Your task to perform on an android device: open app "Cash App" (install if not already installed) and go to login screen Image 0: 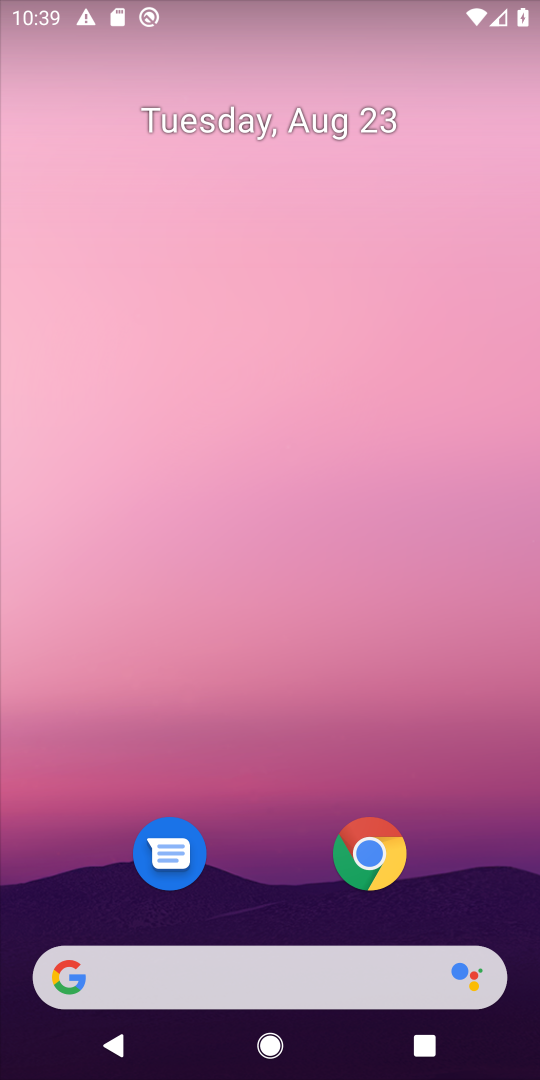
Step 0: drag from (533, 617) to (511, 189)
Your task to perform on an android device: open app "Cash App" (install if not already installed) and go to login screen Image 1: 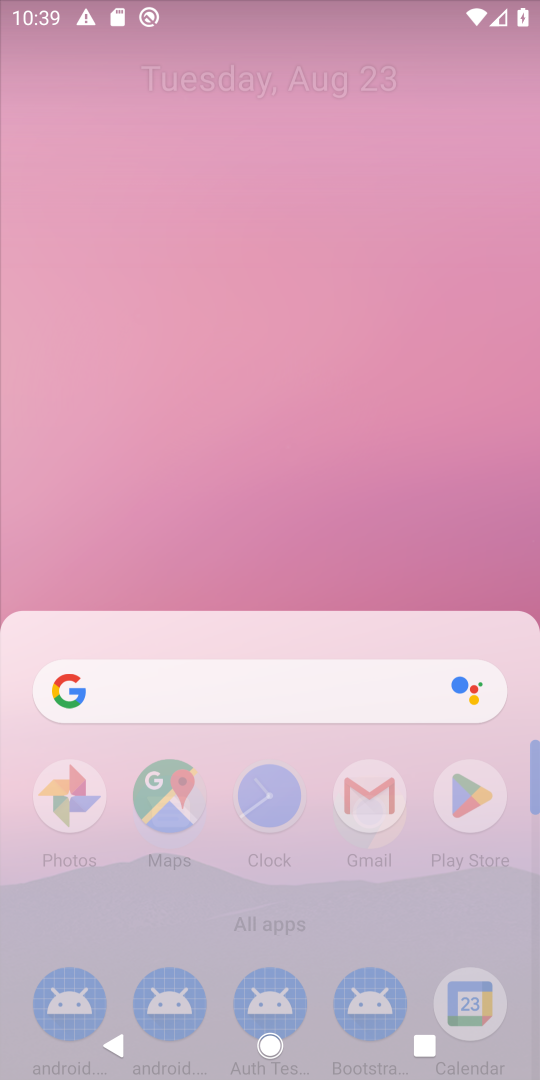
Step 1: drag from (274, 821) to (237, 169)
Your task to perform on an android device: open app "Cash App" (install if not already installed) and go to login screen Image 2: 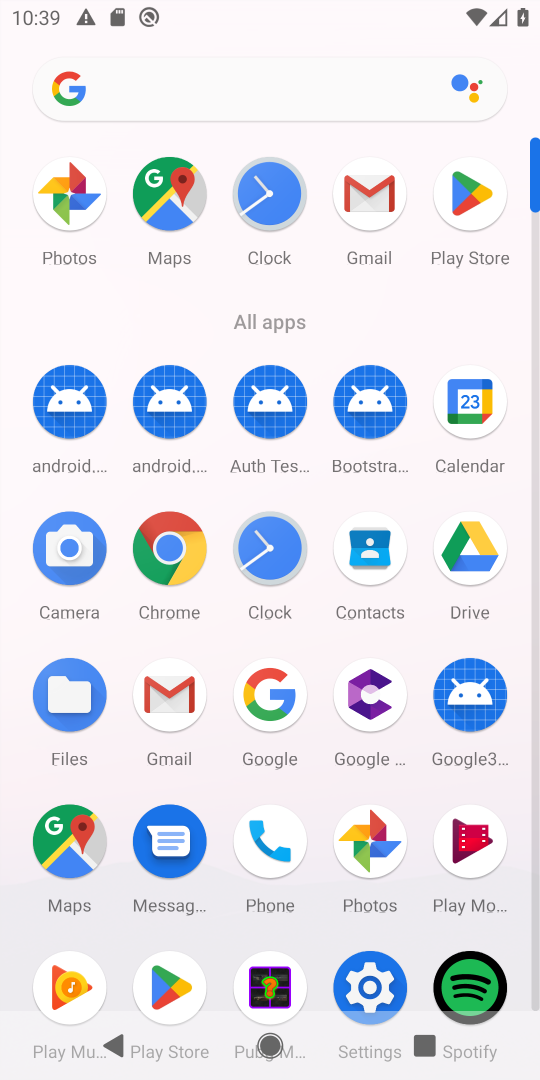
Step 2: click (459, 196)
Your task to perform on an android device: open app "Cash App" (install if not already installed) and go to login screen Image 3: 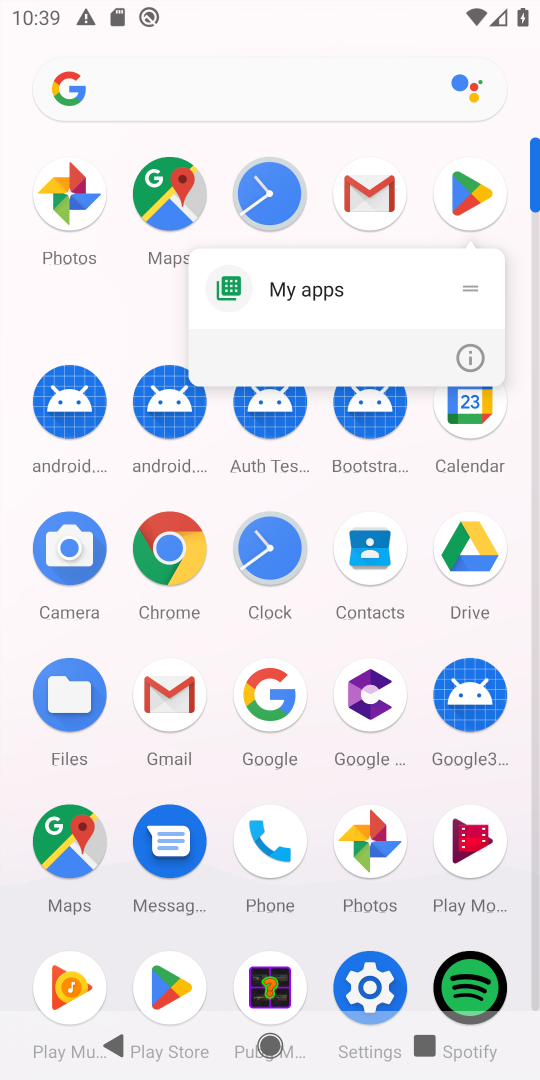
Step 3: click (459, 197)
Your task to perform on an android device: open app "Cash App" (install if not already installed) and go to login screen Image 4: 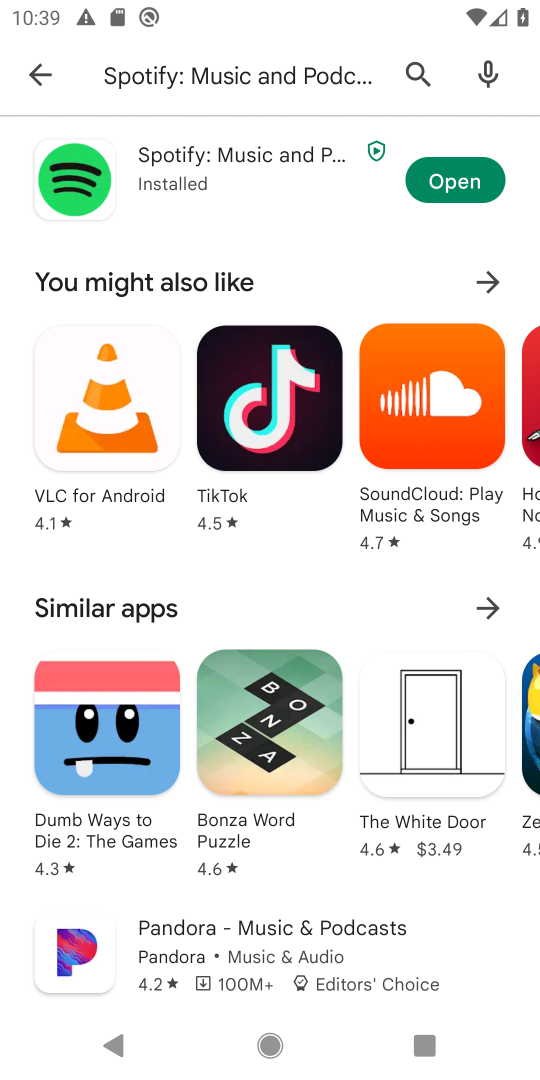
Step 4: press back button
Your task to perform on an android device: open app "Cash App" (install if not already installed) and go to login screen Image 5: 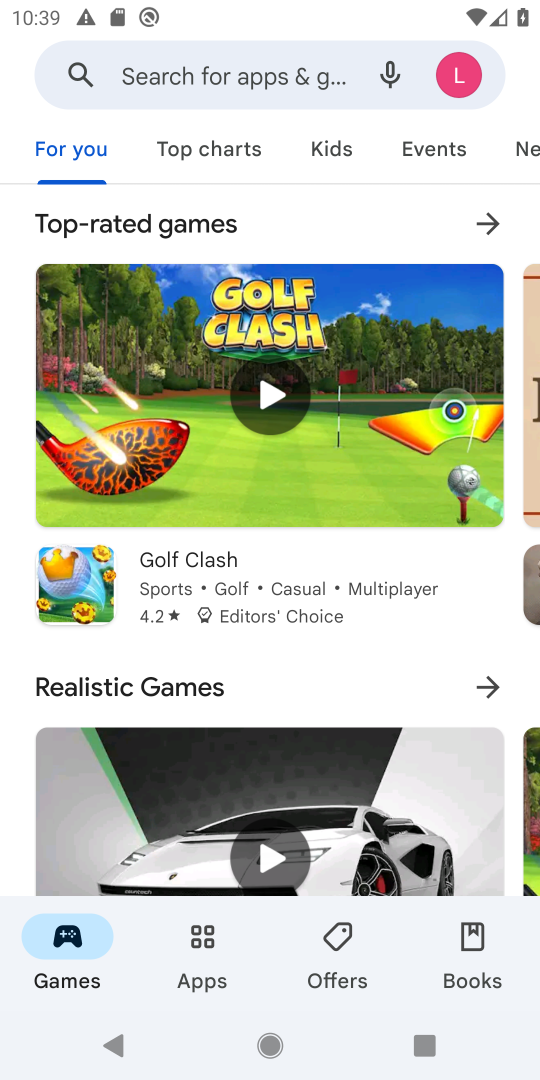
Step 5: click (281, 97)
Your task to perform on an android device: open app "Cash App" (install if not already installed) and go to login screen Image 6: 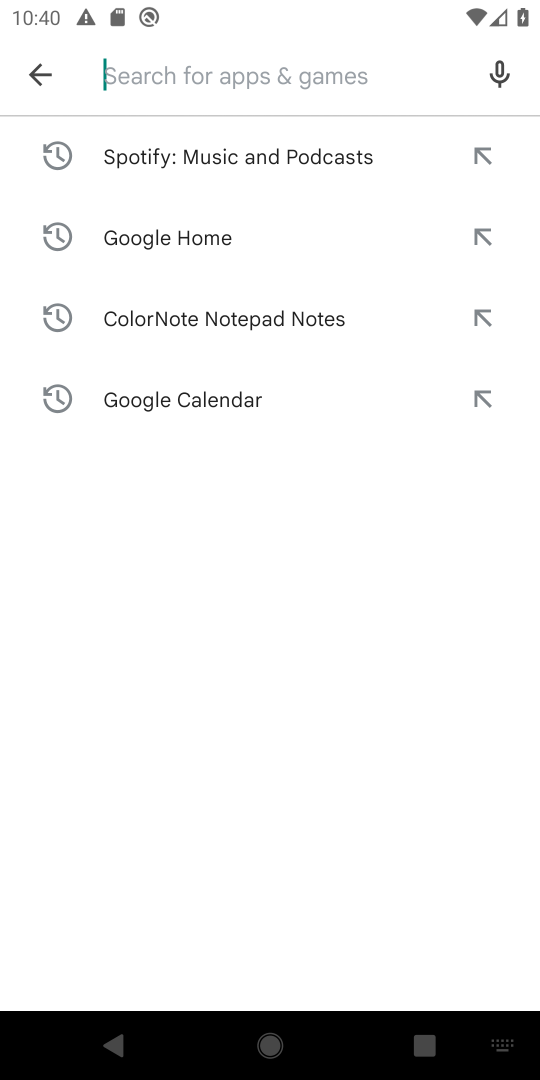
Step 6: type "Cash App"
Your task to perform on an android device: open app "Cash App" (install if not already installed) and go to login screen Image 7: 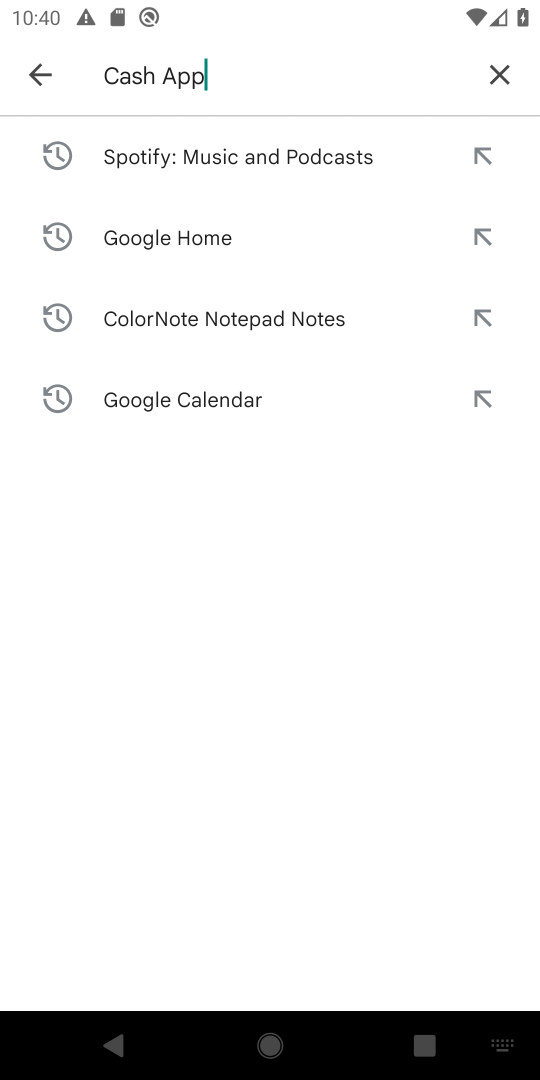
Step 7: press enter
Your task to perform on an android device: open app "Cash App" (install if not already installed) and go to login screen Image 8: 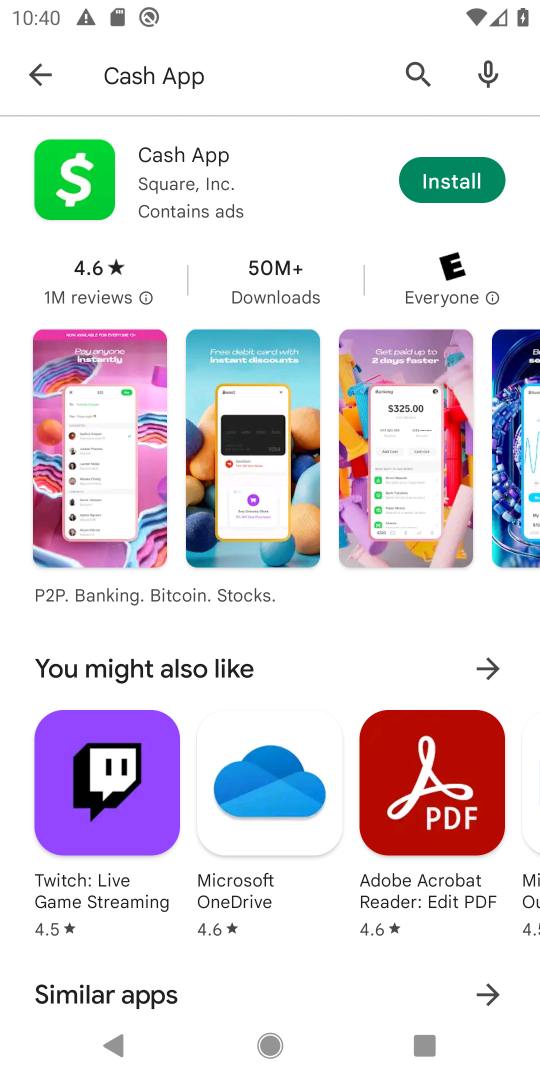
Step 8: click (461, 177)
Your task to perform on an android device: open app "Cash App" (install if not already installed) and go to login screen Image 9: 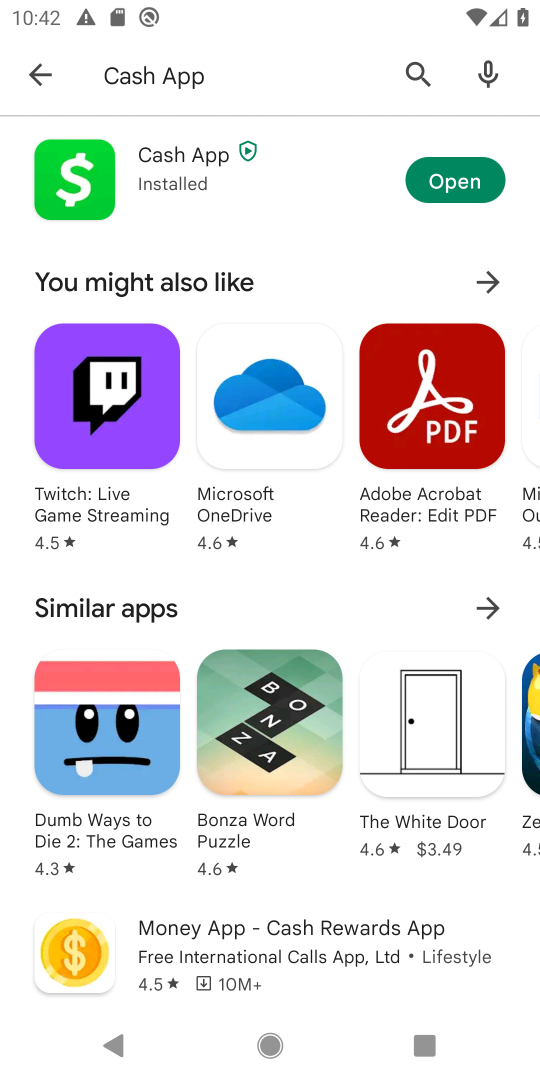
Step 9: click (454, 168)
Your task to perform on an android device: open app "Cash App" (install if not already installed) and go to login screen Image 10: 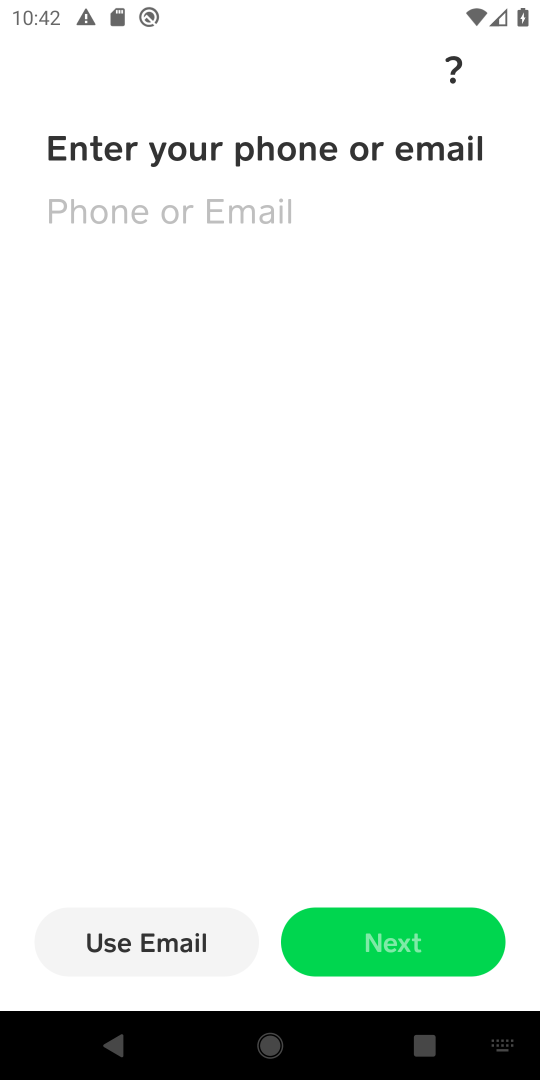
Step 10: task complete